Your task to perform on an android device: turn off priority inbox in the gmail app Image 0: 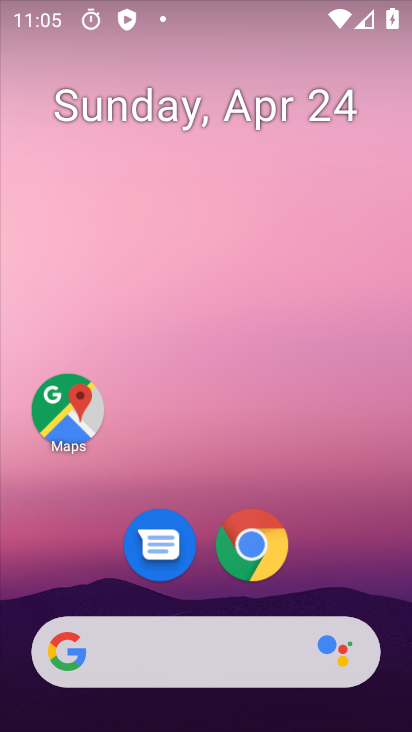
Step 0: drag from (276, 654) to (302, 203)
Your task to perform on an android device: turn off priority inbox in the gmail app Image 1: 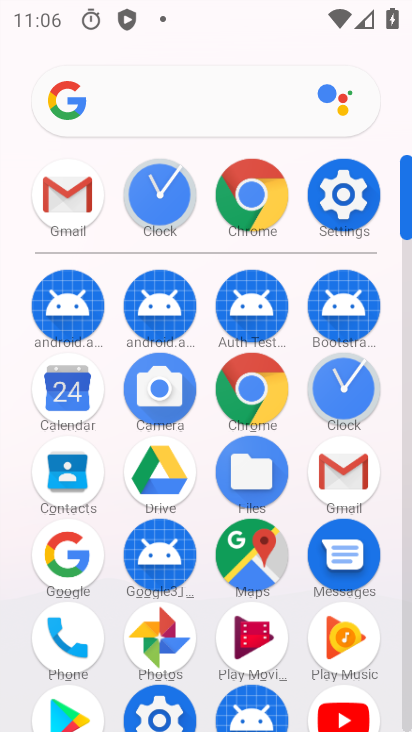
Step 1: click (85, 218)
Your task to perform on an android device: turn off priority inbox in the gmail app Image 2: 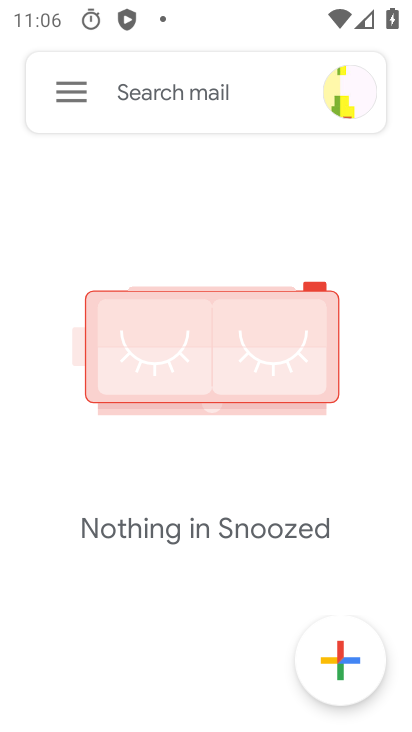
Step 2: click (71, 86)
Your task to perform on an android device: turn off priority inbox in the gmail app Image 3: 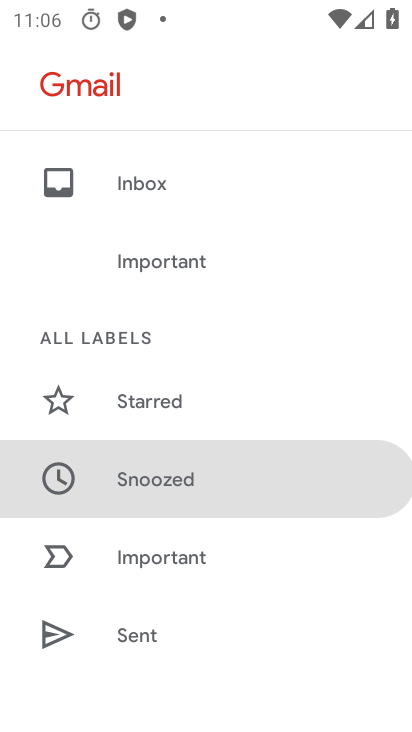
Step 3: drag from (185, 549) to (270, 231)
Your task to perform on an android device: turn off priority inbox in the gmail app Image 4: 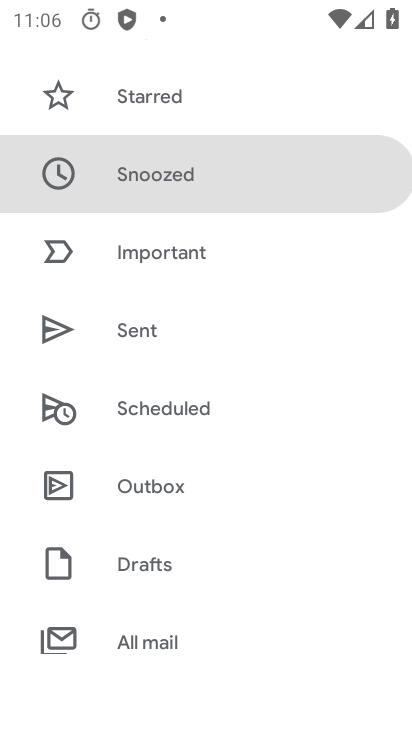
Step 4: drag from (173, 557) to (256, 261)
Your task to perform on an android device: turn off priority inbox in the gmail app Image 5: 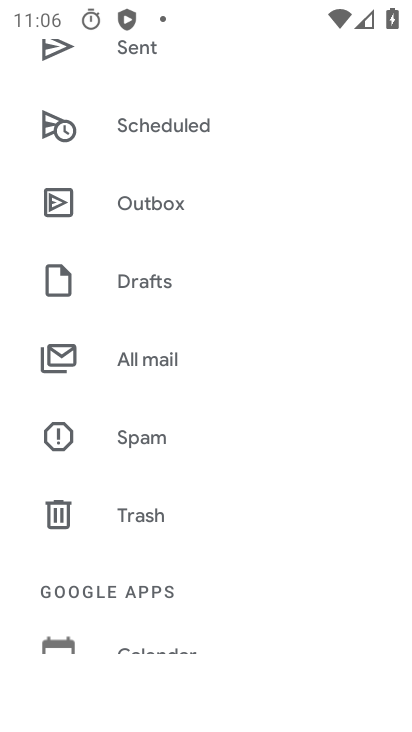
Step 5: drag from (141, 560) to (208, 318)
Your task to perform on an android device: turn off priority inbox in the gmail app Image 6: 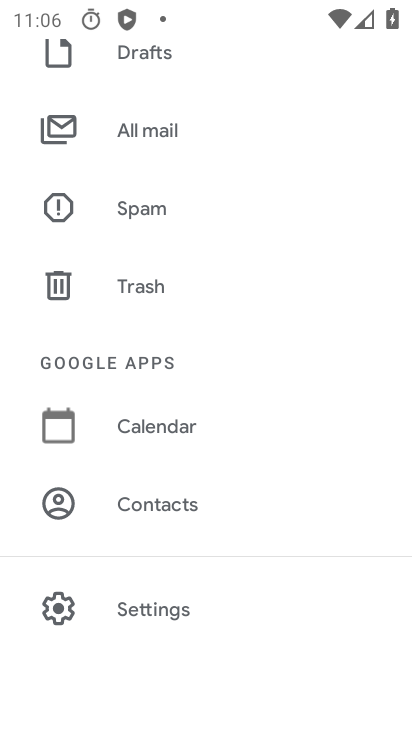
Step 6: click (120, 614)
Your task to perform on an android device: turn off priority inbox in the gmail app Image 7: 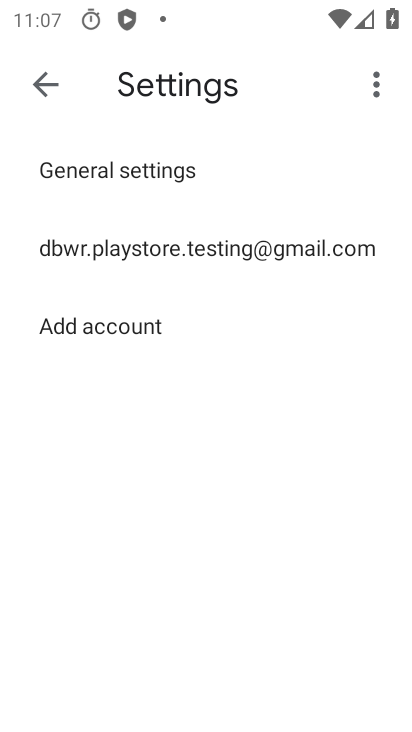
Step 7: click (192, 265)
Your task to perform on an android device: turn off priority inbox in the gmail app Image 8: 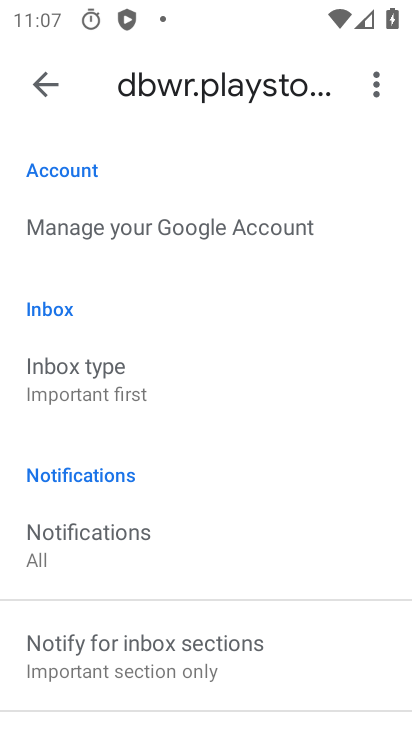
Step 8: click (60, 372)
Your task to perform on an android device: turn off priority inbox in the gmail app Image 9: 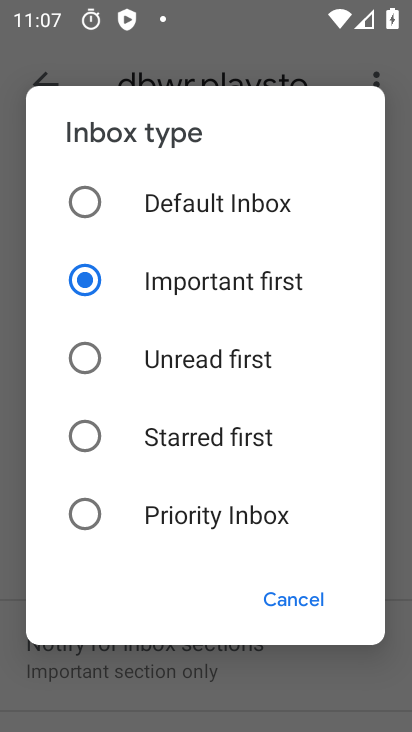
Step 9: task complete